Your task to perform on an android device: open a bookmark in the chrome app Image 0: 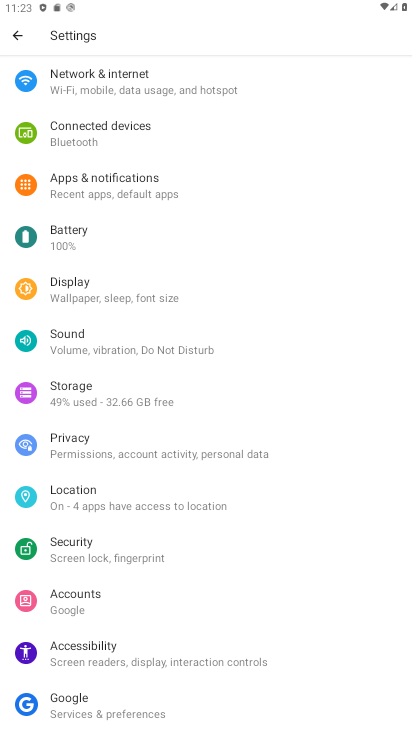
Step 0: press home button
Your task to perform on an android device: open a bookmark in the chrome app Image 1: 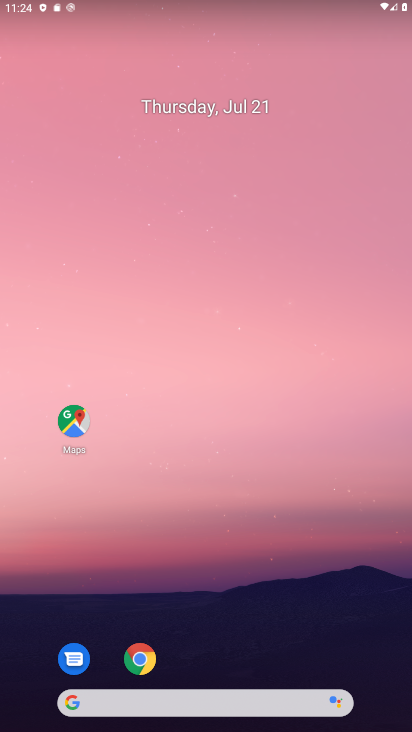
Step 1: click (141, 653)
Your task to perform on an android device: open a bookmark in the chrome app Image 2: 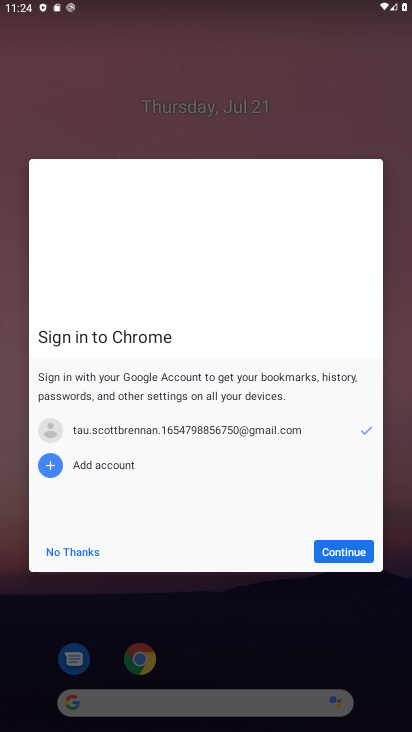
Step 2: click (352, 549)
Your task to perform on an android device: open a bookmark in the chrome app Image 3: 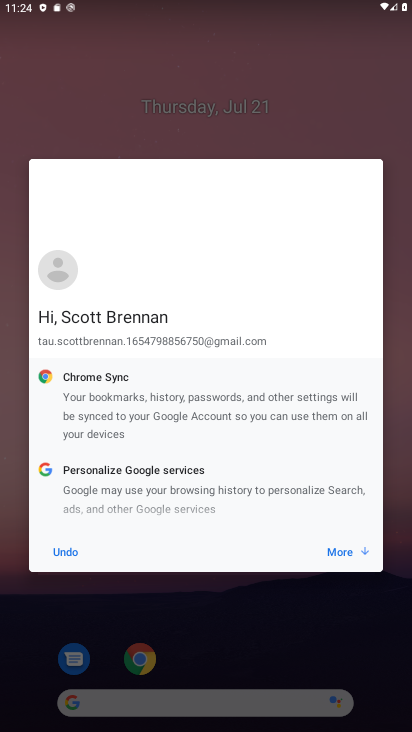
Step 3: click (340, 542)
Your task to perform on an android device: open a bookmark in the chrome app Image 4: 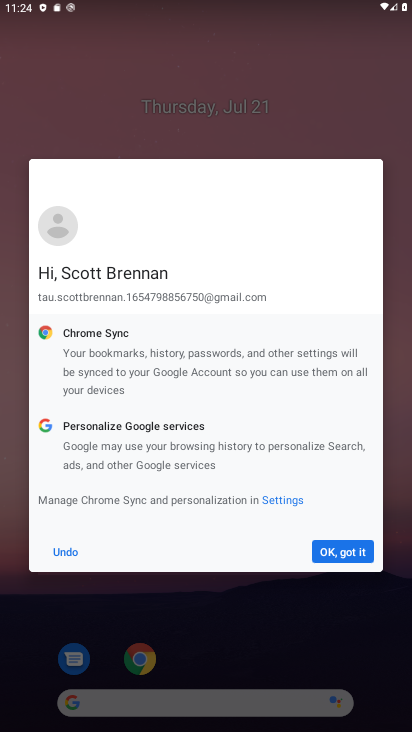
Step 4: click (334, 542)
Your task to perform on an android device: open a bookmark in the chrome app Image 5: 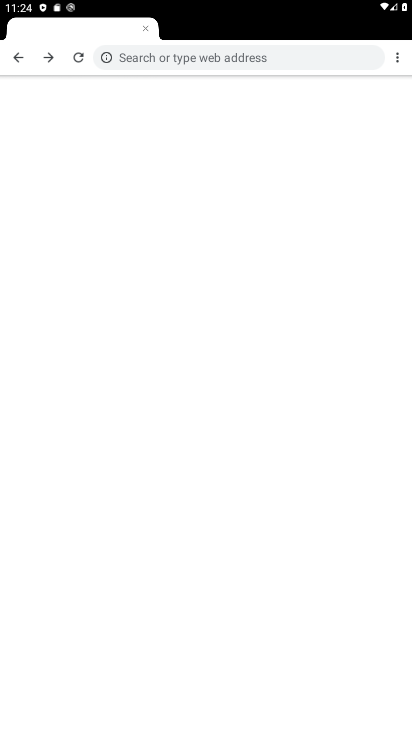
Step 5: task complete